Your task to perform on an android device: turn on priority inbox in the gmail app Image 0: 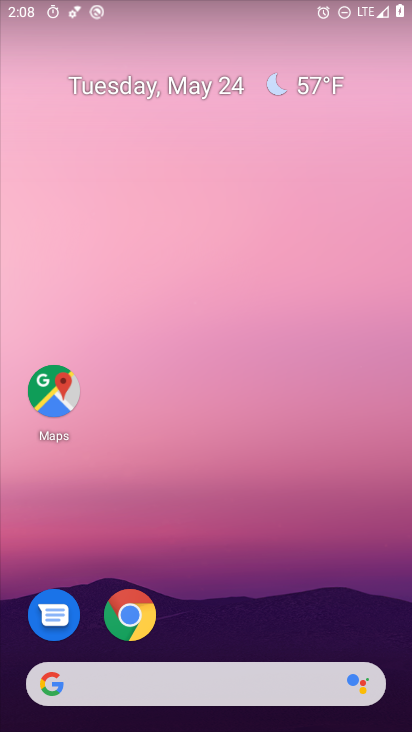
Step 0: drag from (210, 652) to (188, 195)
Your task to perform on an android device: turn on priority inbox in the gmail app Image 1: 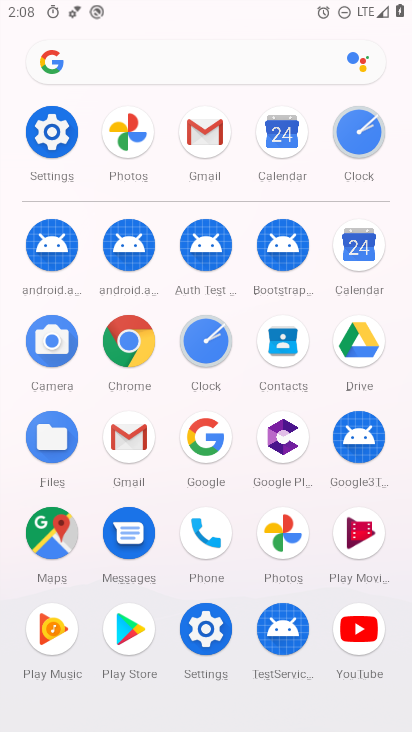
Step 1: click (208, 140)
Your task to perform on an android device: turn on priority inbox in the gmail app Image 2: 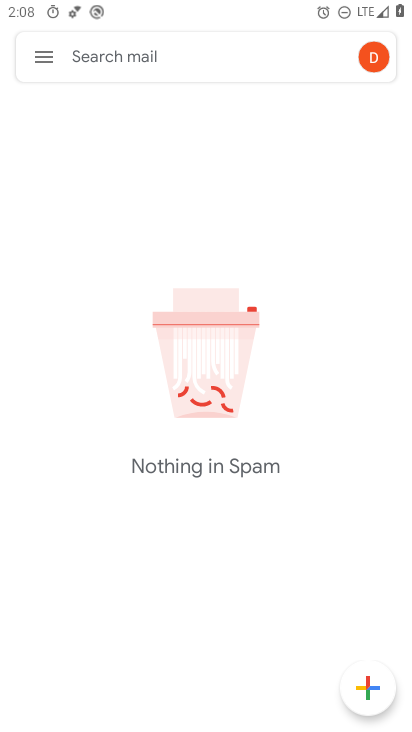
Step 2: click (42, 62)
Your task to perform on an android device: turn on priority inbox in the gmail app Image 3: 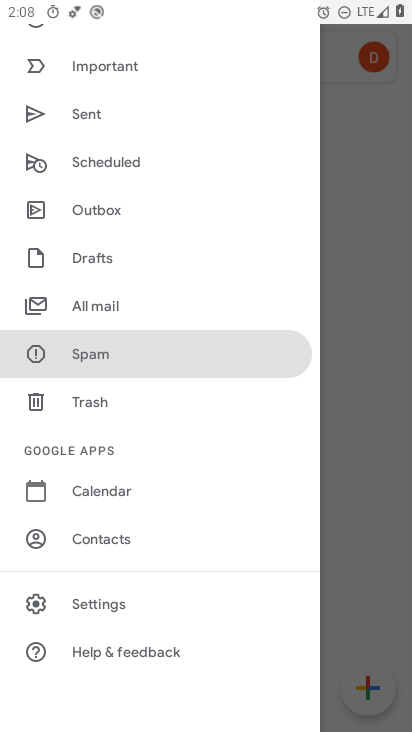
Step 3: click (101, 607)
Your task to perform on an android device: turn on priority inbox in the gmail app Image 4: 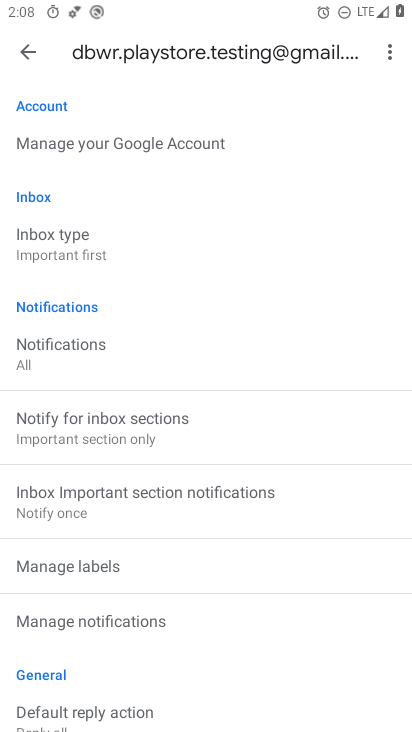
Step 4: click (64, 241)
Your task to perform on an android device: turn on priority inbox in the gmail app Image 5: 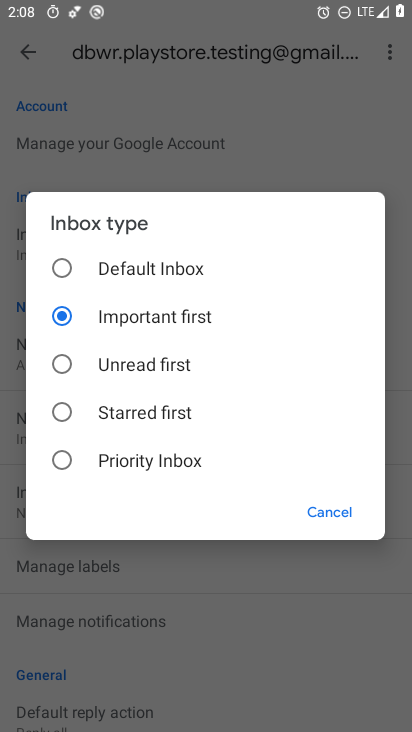
Step 5: click (57, 460)
Your task to perform on an android device: turn on priority inbox in the gmail app Image 6: 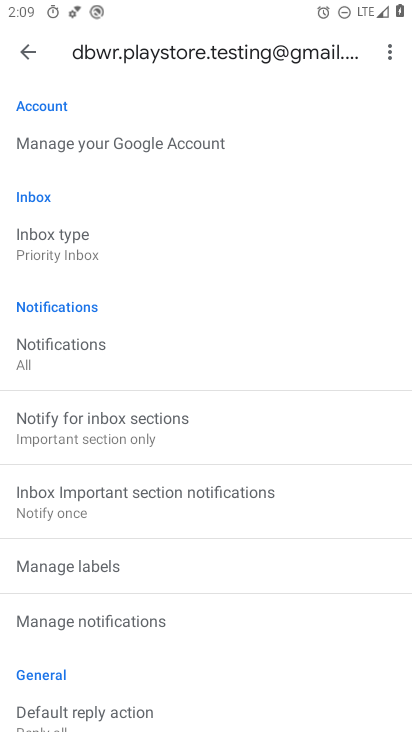
Step 6: task complete